Your task to perform on an android device: Go to network settings Image 0: 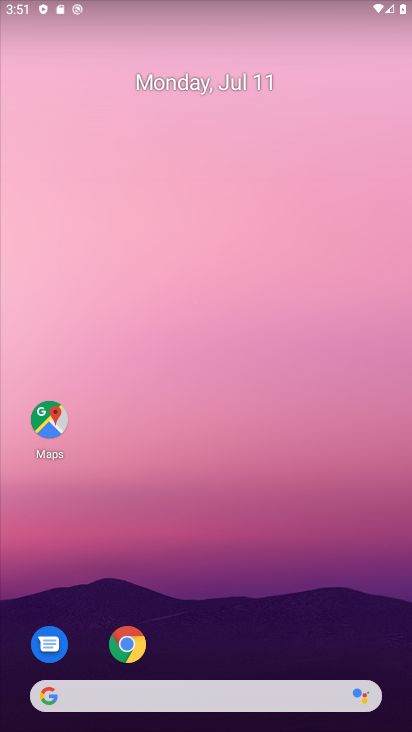
Step 0: press home button
Your task to perform on an android device: Go to network settings Image 1: 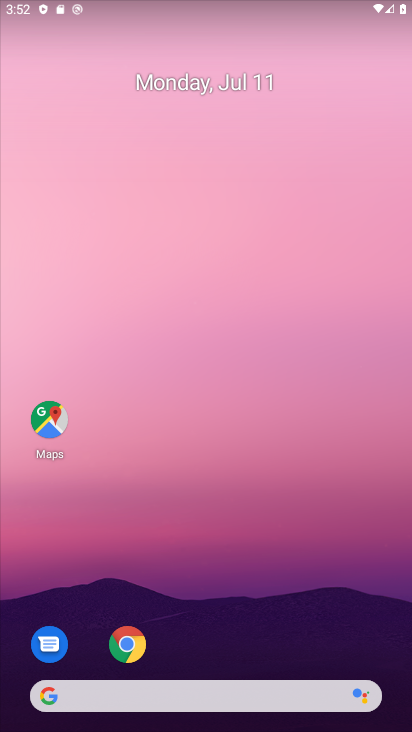
Step 1: drag from (221, 653) to (203, 88)
Your task to perform on an android device: Go to network settings Image 2: 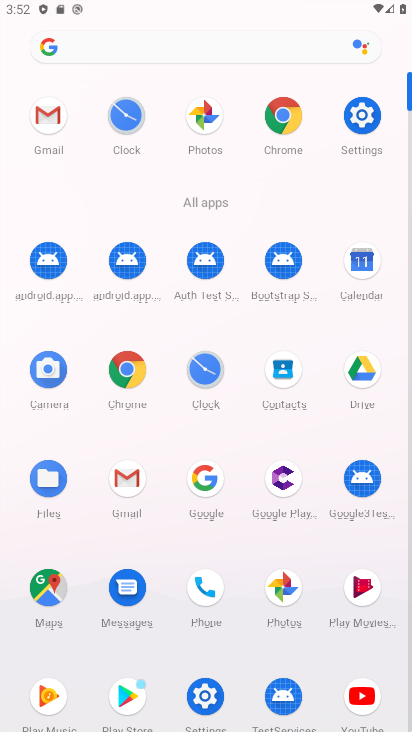
Step 2: click (360, 111)
Your task to perform on an android device: Go to network settings Image 3: 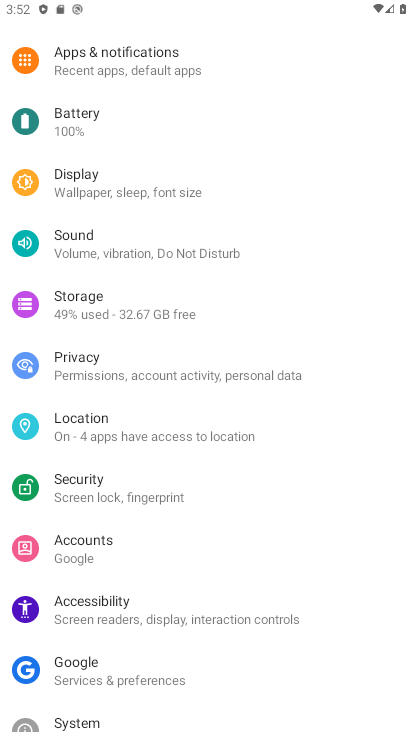
Step 3: drag from (157, 100) to (135, 540)
Your task to perform on an android device: Go to network settings Image 4: 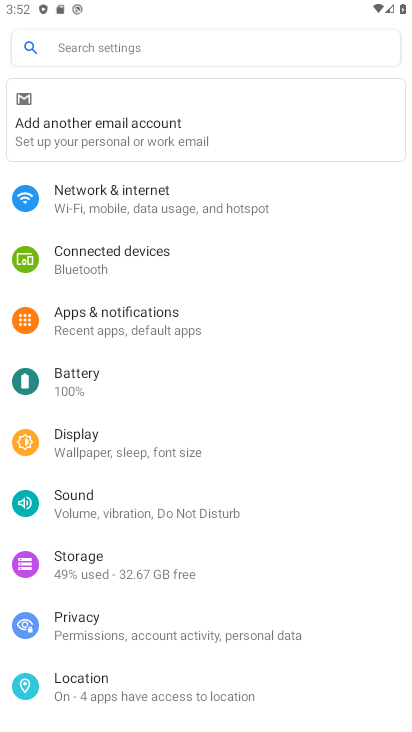
Step 4: click (175, 195)
Your task to perform on an android device: Go to network settings Image 5: 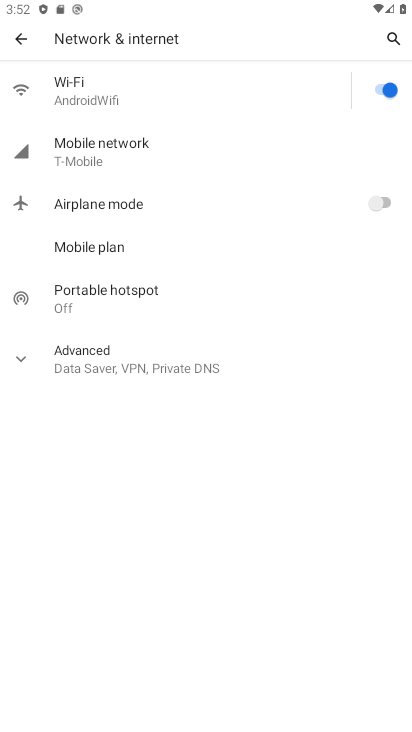
Step 5: click (17, 353)
Your task to perform on an android device: Go to network settings Image 6: 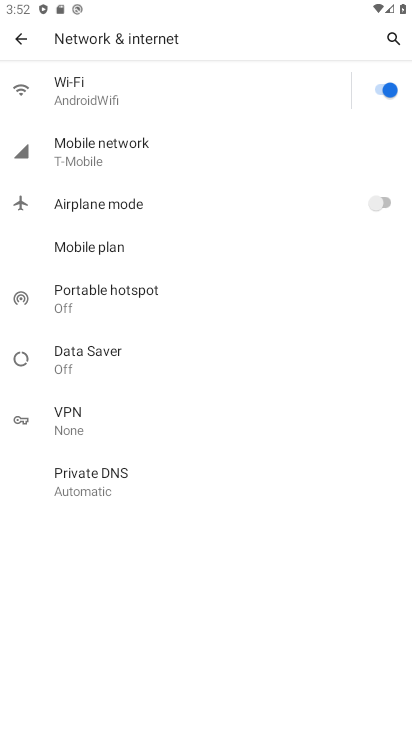
Step 6: task complete